Your task to perform on an android device: Open the calendar and show me this week's events Image 0: 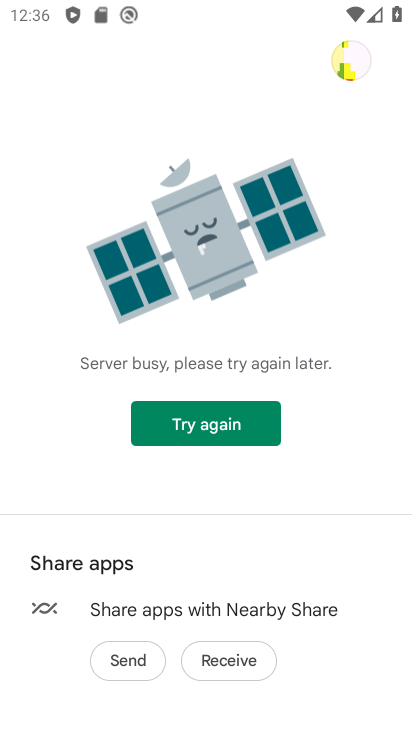
Step 0: press home button
Your task to perform on an android device: Open the calendar and show me this week's events Image 1: 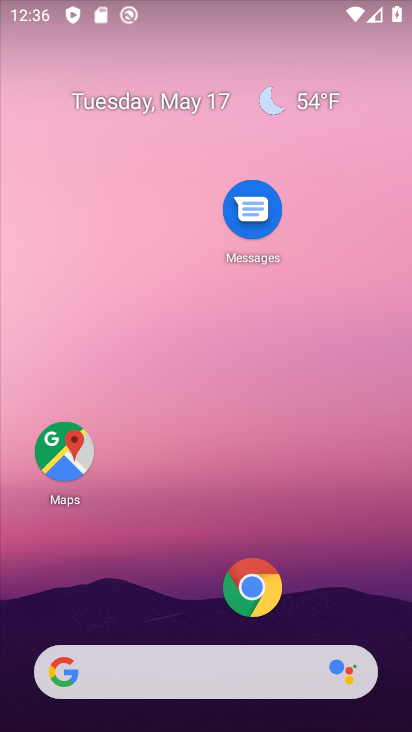
Step 1: drag from (166, 588) to (235, 43)
Your task to perform on an android device: Open the calendar and show me this week's events Image 2: 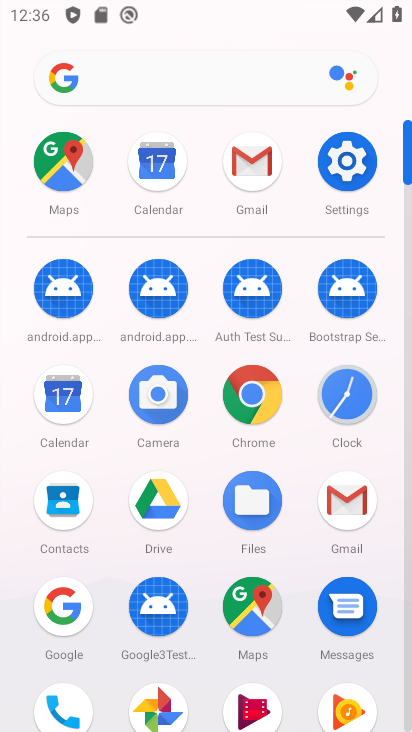
Step 2: click (59, 413)
Your task to perform on an android device: Open the calendar and show me this week's events Image 3: 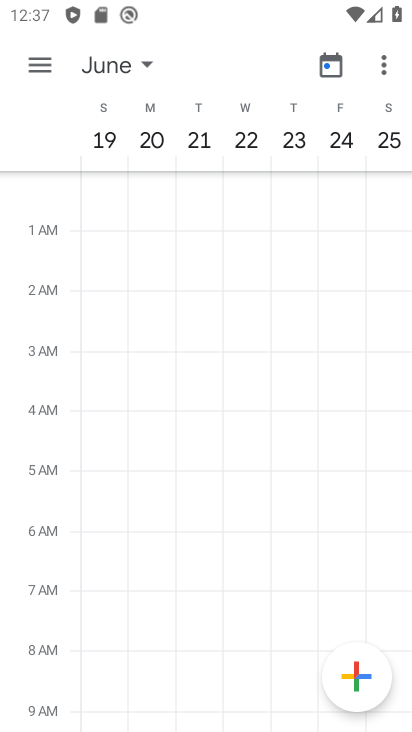
Step 3: task complete